Your task to perform on an android device: turn off notifications in google photos Image 0: 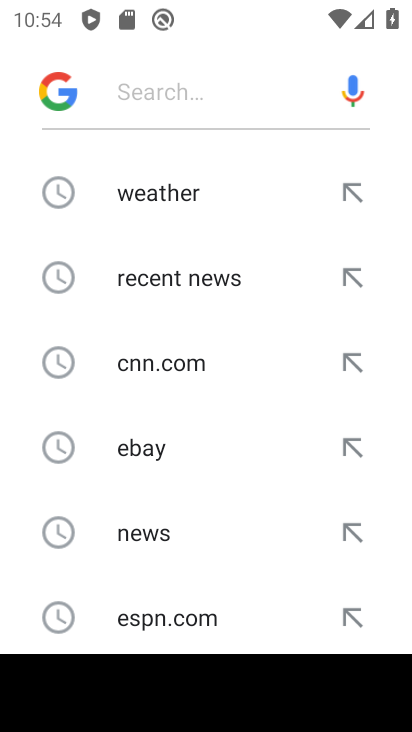
Step 0: press home button
Your task to perform on an android device: turn off notifications in google photos Image 1: 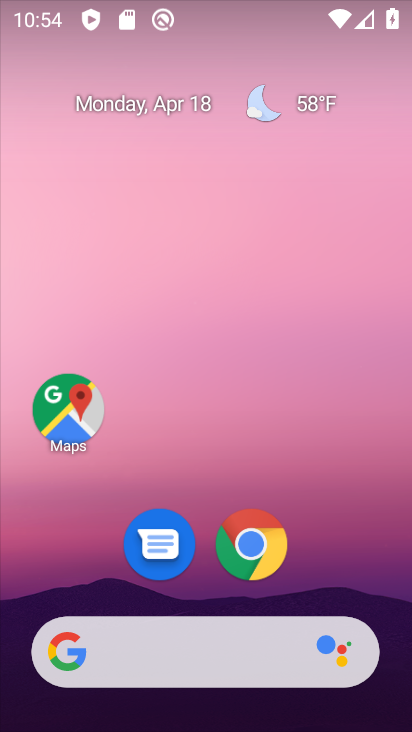
Step 1: drag from (201, 587) to (309, 9)
Your task to perform on an android device: turn off notifications in google photos Image 2: 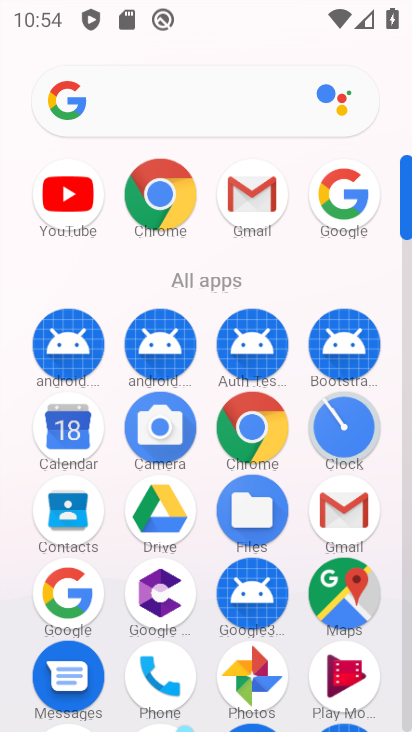
Step 2: drag from (199, 583) to (212, 334)
Your task to perform on an android device: turn off notifications in google photos Image 3: 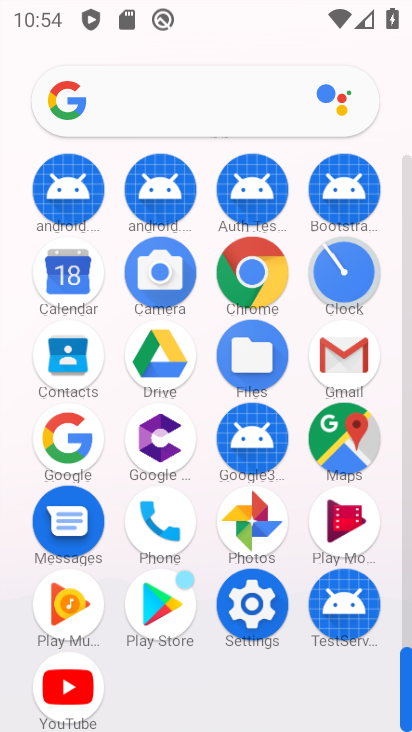
Step 3: click (255, 520)
Your task to perform on an android device: turn off notifications in google photos Image 4: 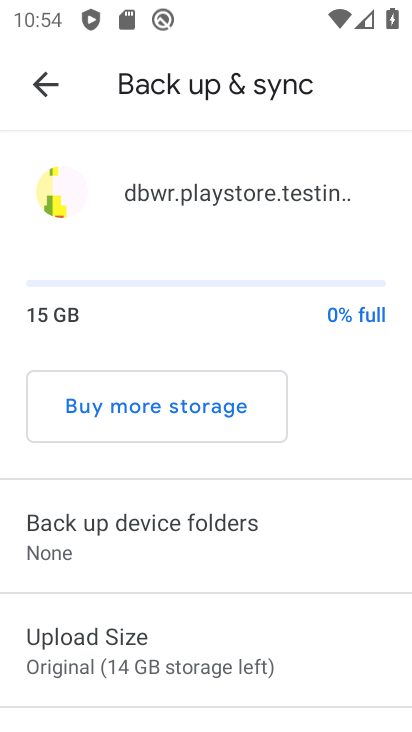
Step 4: press back button
Your task to perform on an android device: turn off notifications in google photos Image 5: 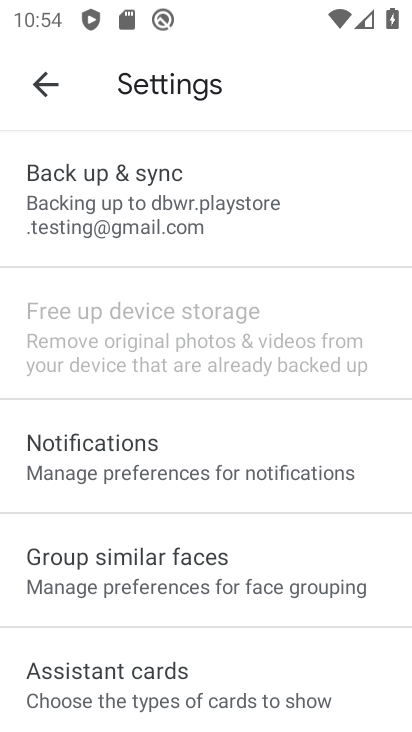
Step 5: click (121, 440)
Your task to perform on an android device: turn off notifications in google photos Image 6: 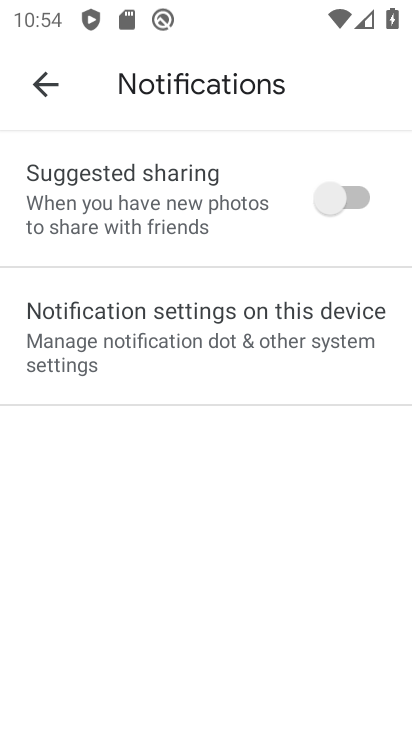
Step 6: click (149, 315)
Your task to perform on an android device: turn off notifications in google photos Image 7: 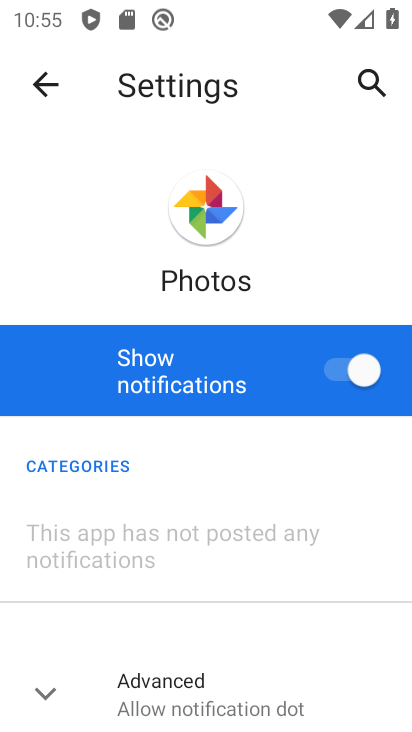
Step 7: click (370, 370)
Your task to perform on an android device: turn off notifications in google photos Image 8: 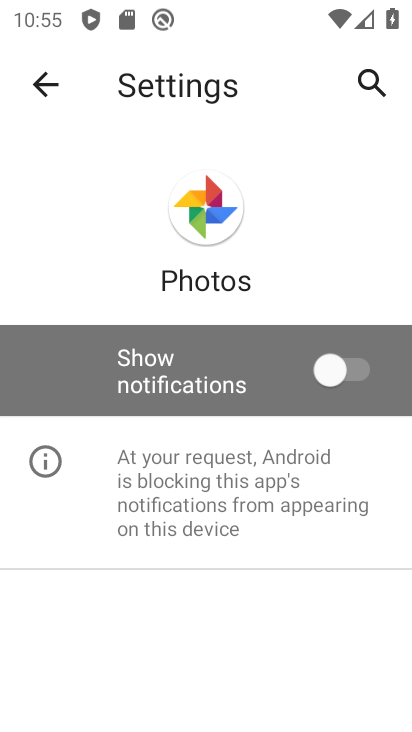
Step 8: task complete